Your task to perform on an android device: open app "HBO Max: Stream TV & Movies" (install if not already installed), go to login, and select forgot password Image 0: 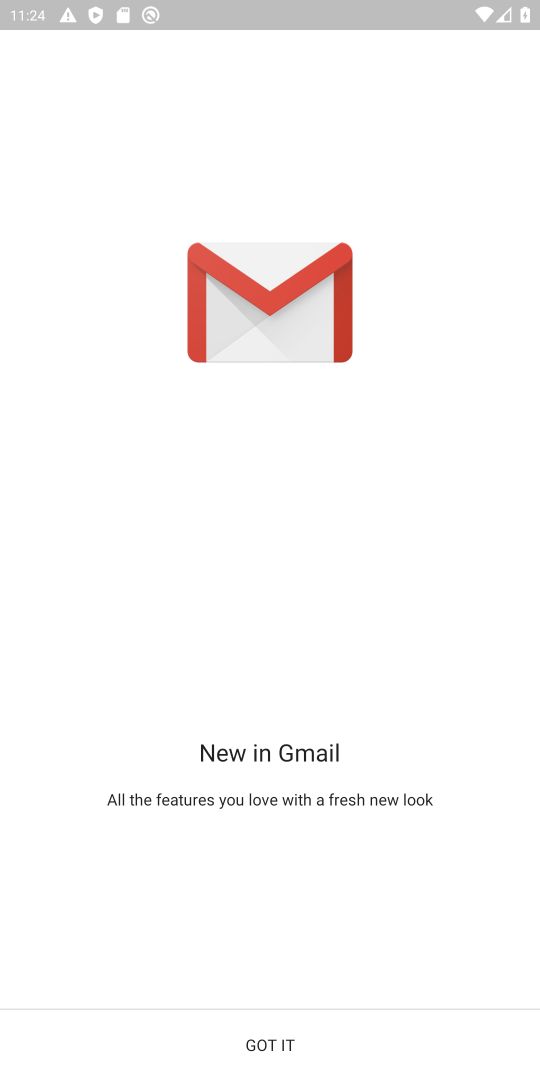
Step 0: press home button
Your task to perform on an android device: open app "HBO Max: Stream TV & Movies" (install if not already installed), go to login, and select forgot password Image 1: 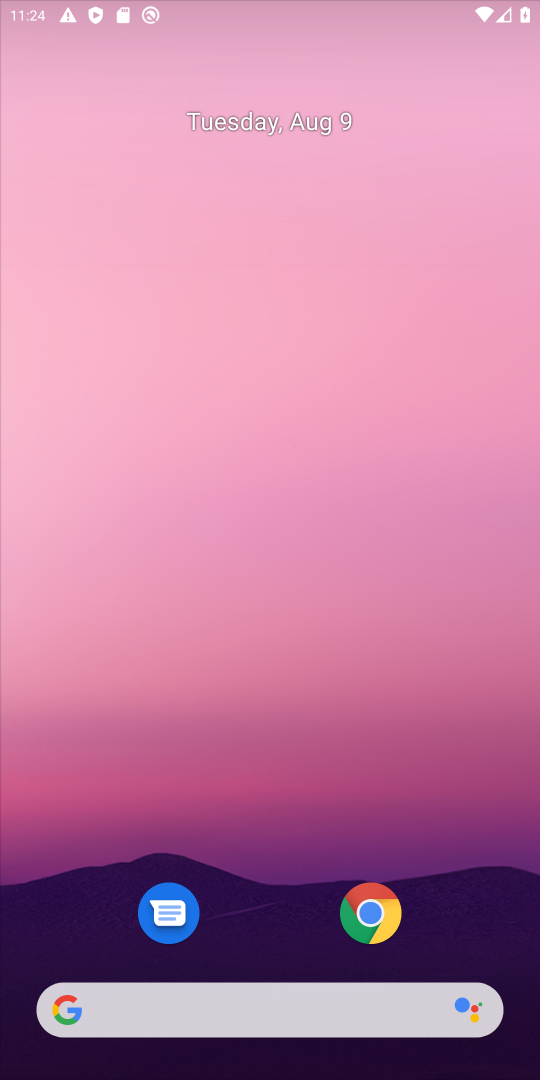
Step 1: drag from (186, 895) to (235, 340)
Your task to perform on an android device: open app "HBO Max: Stream TV & Movies" (install if not already installed), go to login, and select forgot password Image 2: 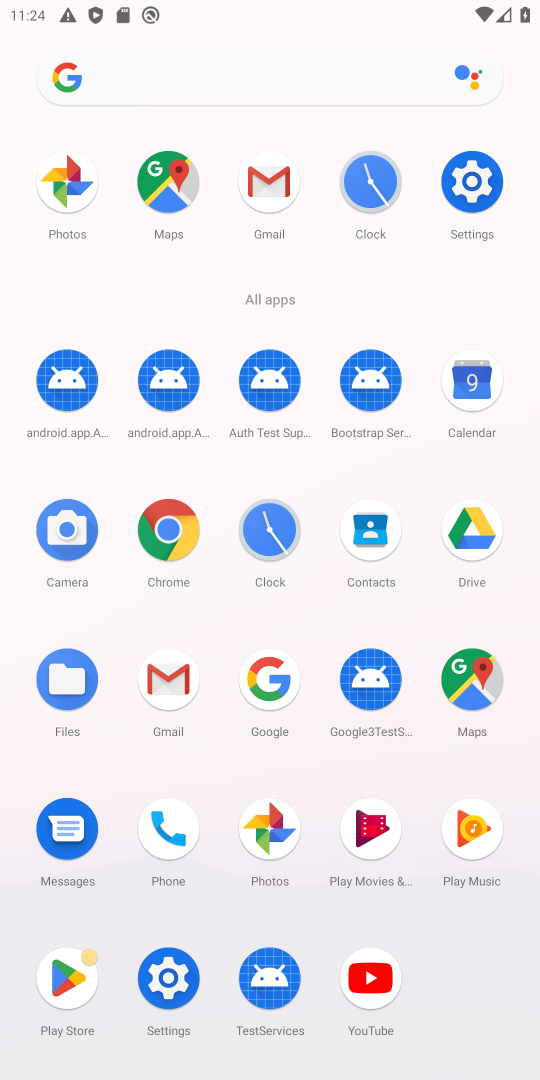
Step 2: click (61, 986)
Your task to perform on an android device: open app "HBO Max: Stream TV & Movies" (install if not already installed), go to login, and select forgot password Image 3: 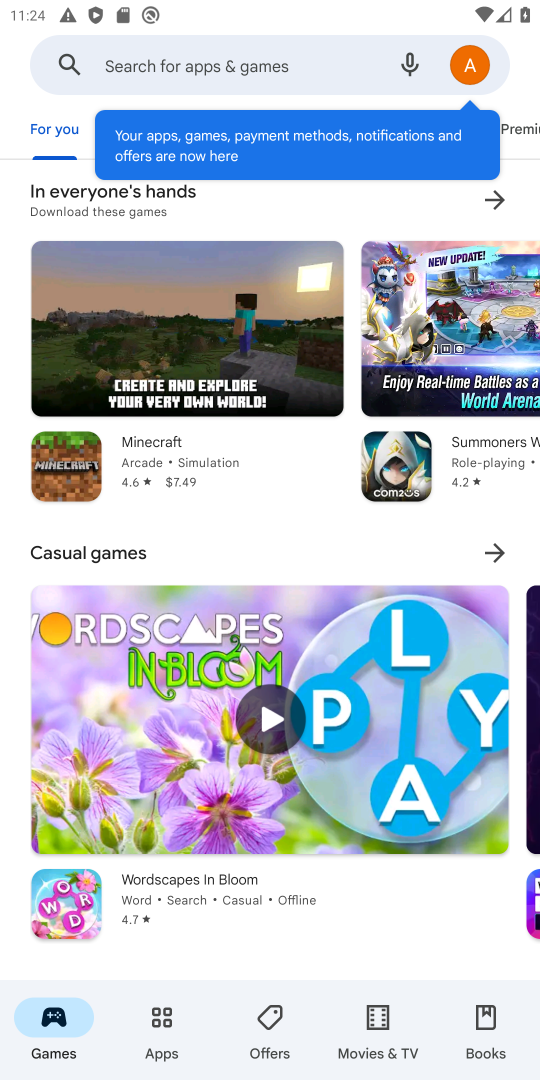
Step 3: click (292, 59)
Your task to perform on an android device: open app "HBO Max: Stream TV & Movies" (install if not already installed), go to login, and select forgot password Image 4: 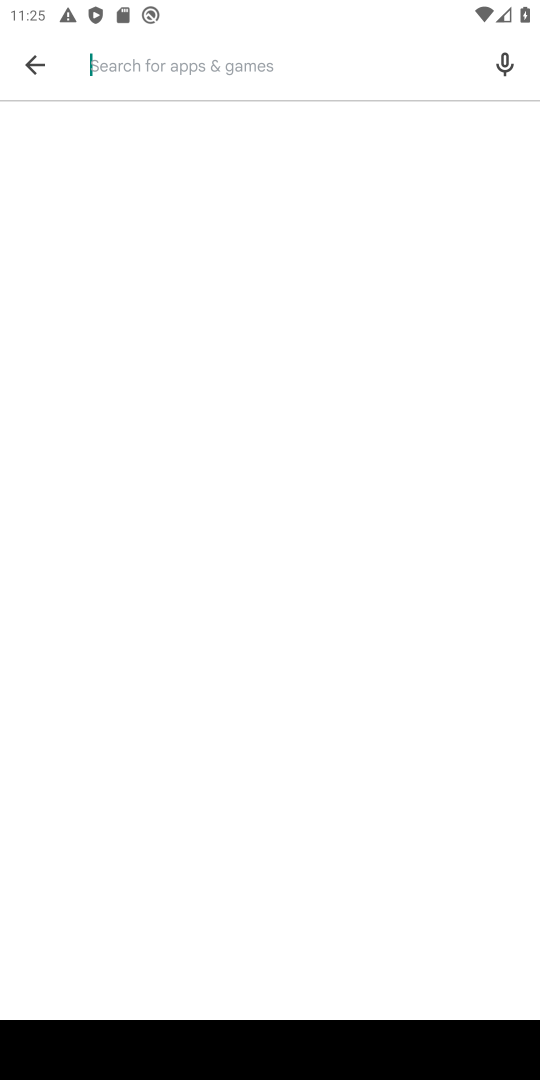
Step 4: type "HBO Max "
Your task to perform on an android device: open app "HBO Max: Stream TV & Movies" (install if not already installed), go to login, and select forgot password Image 5: 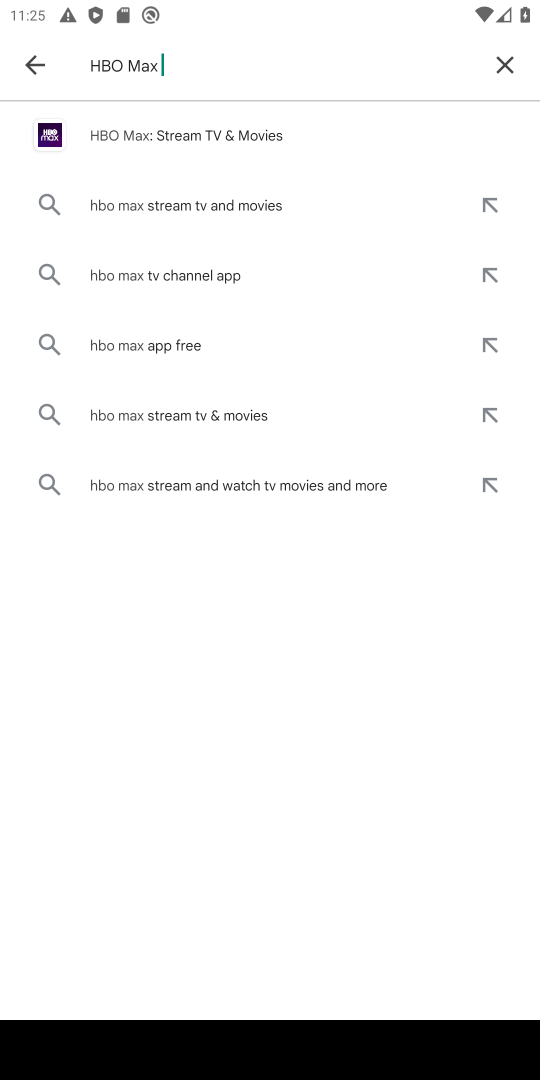
Step 5: click (149, 134)
Your task to perform on an android device: open app "HBO Max: Stream TV & Movies" (install if not already installed), go to login, and select forgot password Image 6: 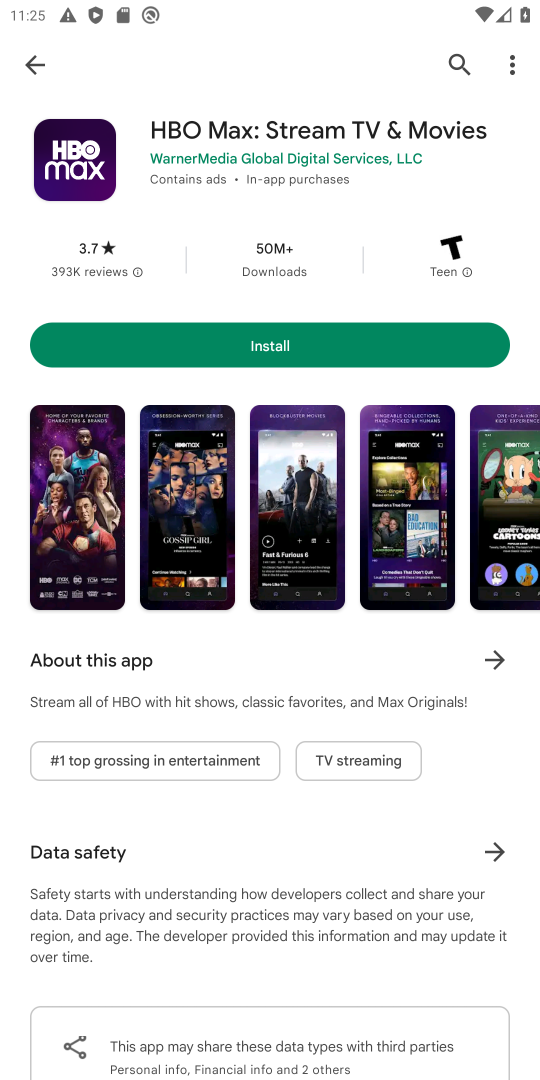
Step 6: click (286, 352)
Your task to perform on an android device: open app "HBO Max: Stream TV & Movies" (install if not already installed), go to login, and select forgot password Image 7: 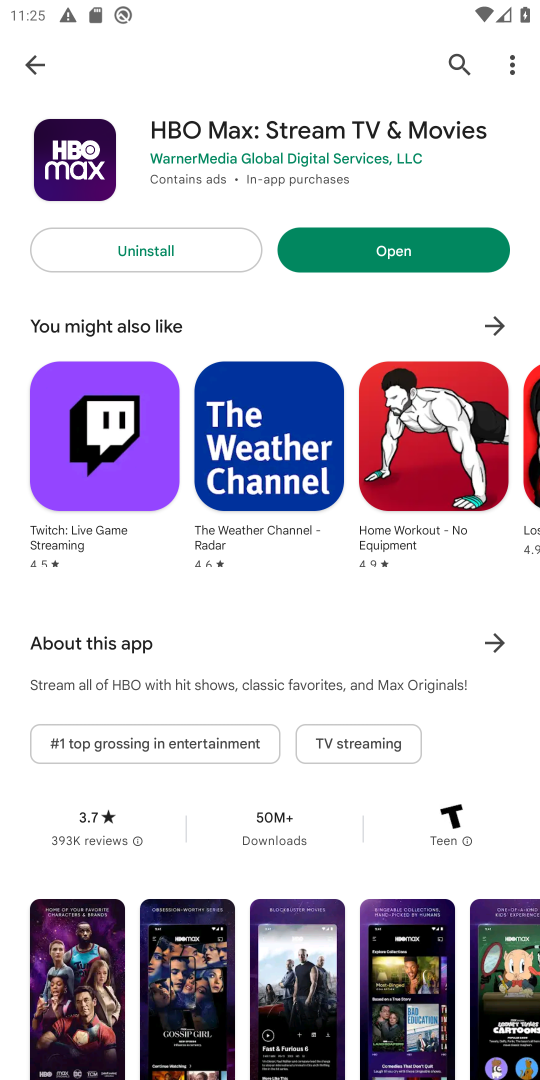
Step 7: task complete